Your task to perform on an android device: clear all cookies in the chrome app Image 0: 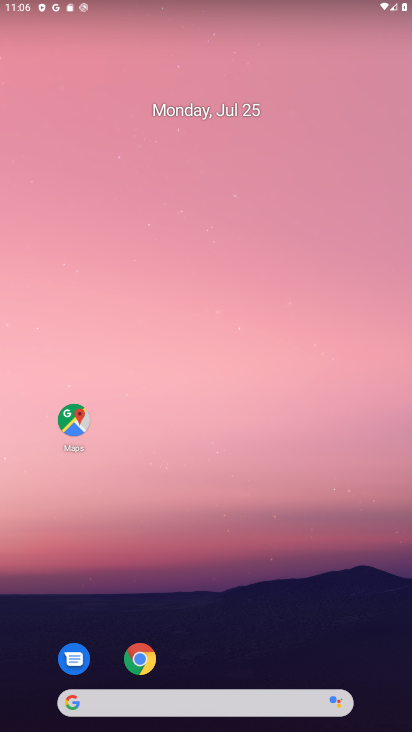
Step 0: drag from (261, 568) to (207, 50)
Your task to perform on an android device: clear all cookies in the chrome app Image 1: 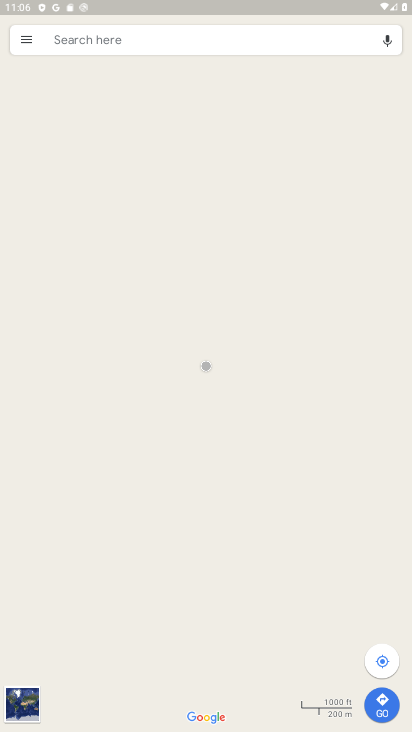
Step 1: press home button
Your task to perform on an android device: clear all cookies in the chrome app Image 2: 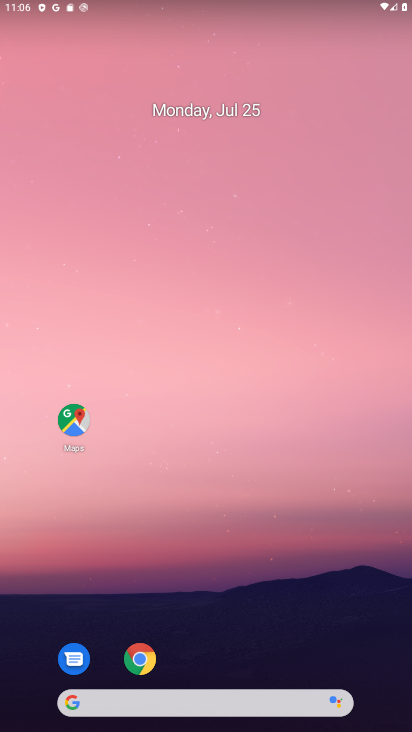
Step 2: drag from (232, 625) to (170, 7)
Your task to perform on an android device: clear all cookies in the chrome app Image 3: 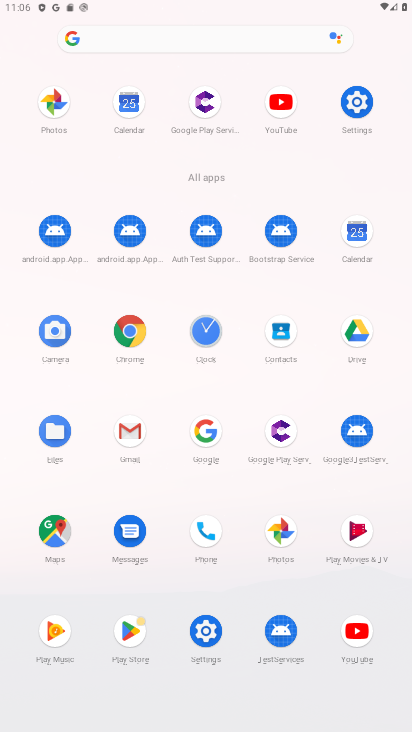
Step 3: click (128, 337)
Your task to perform on an android device: clear all cookies in the chrome app Image 4: 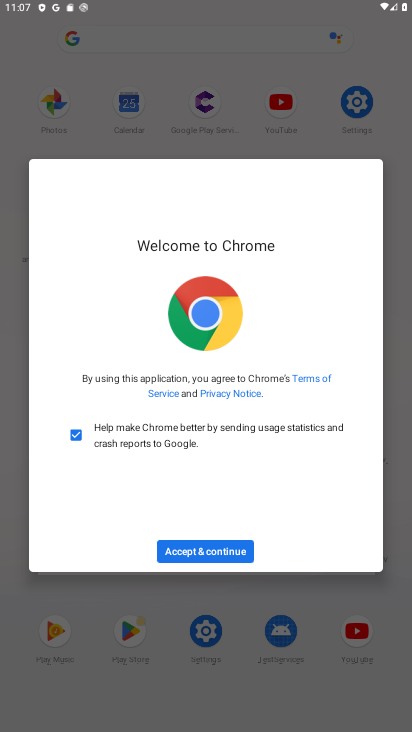
Step 4: click (202, 542)
Your task to perform on an android device: clear all cookies in the chrome app Image 5: 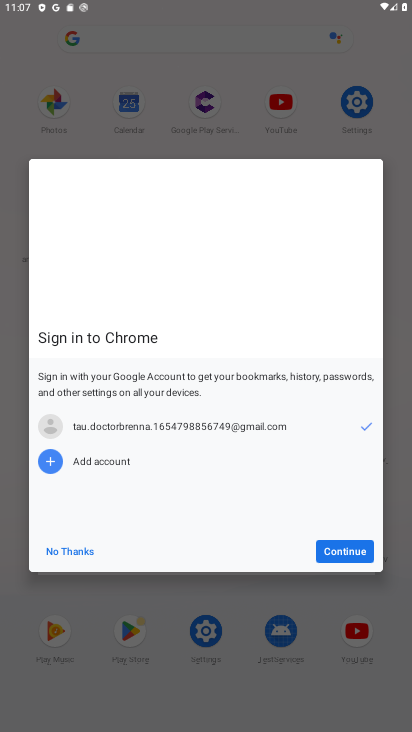
Step 5: click (348, 550)
Your task to perform on an android device: clear all cookies in the chrome app Image 6: 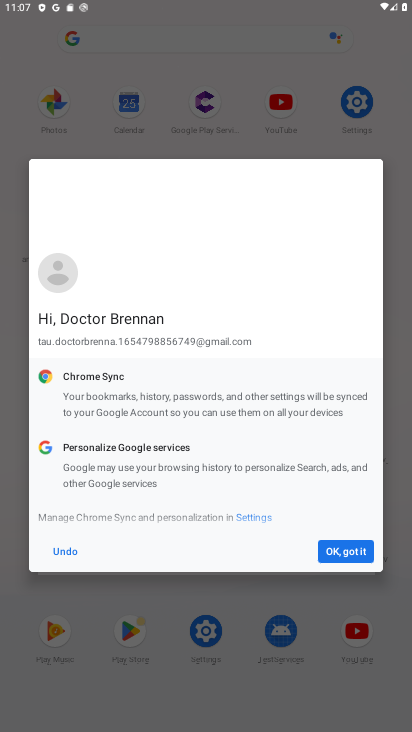
Step 6: click (348, 550)
Your task to perform on an android device: clear all cookies in the chrome app Image 7: 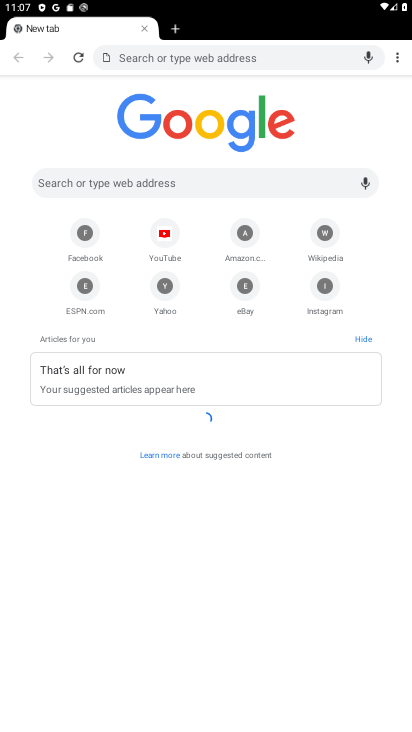
Step 7: click (399, 48)
Your task to perform on an android device: clear all cookies in the chrome app Image 8: 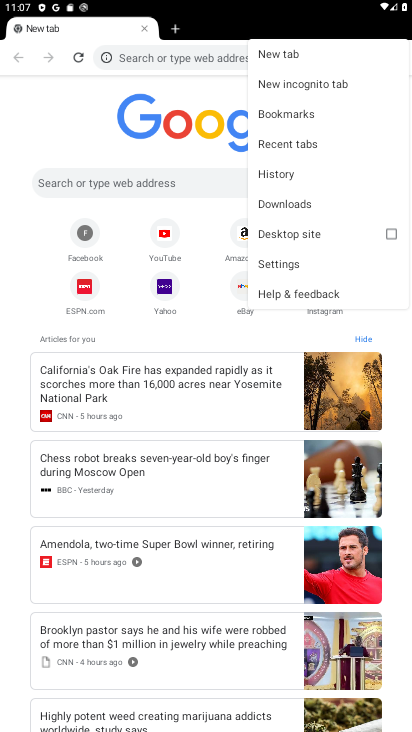
Step 8: click (270, 173)
Your task to perform on an android device: clear all cookies in the chrome app Image 9: 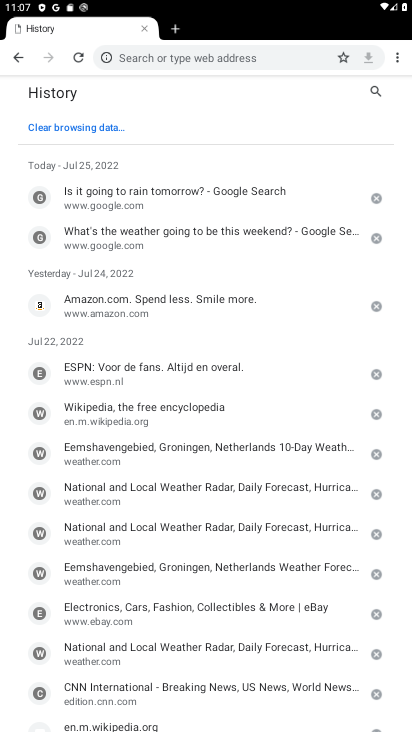
Step 9: click (81, 126)
Your task to perform on an android device: clear all cookies in the chrome app Image 10: 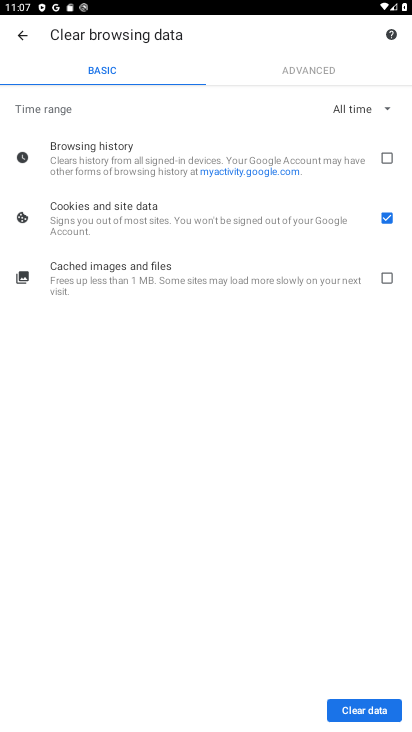
Step 10: click (345, 709)
Your task to perform on an android device: clear all cookies in the chrome app Image 11: 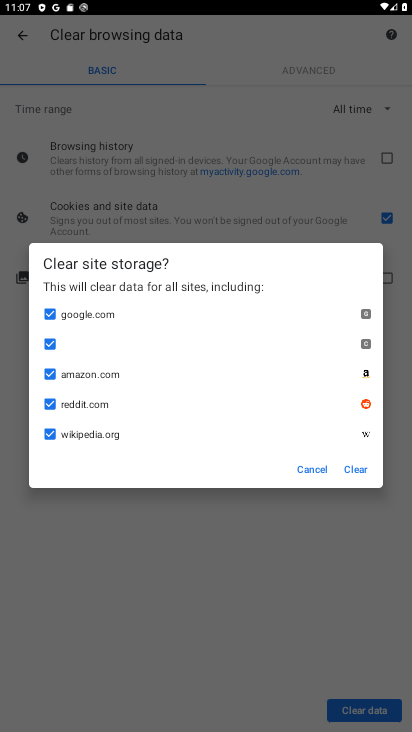
Step 11: click (352, 469)
Your task to perform on an android device: clear all cookies in the chrome app Image 12: 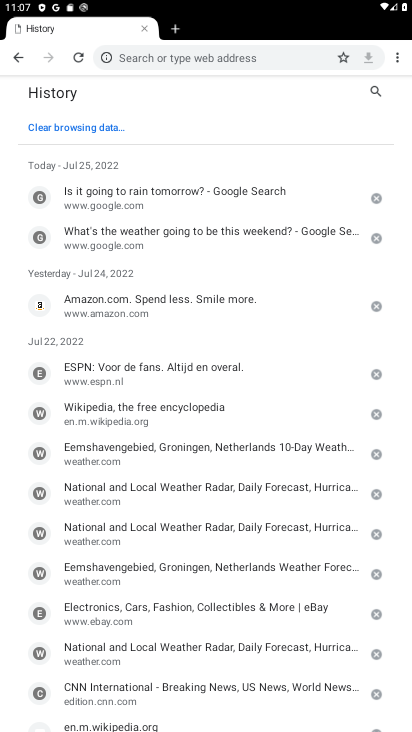
Step 12: task complete